Your task to perform on an android device: add a label to a message in the gmail app Image 0: 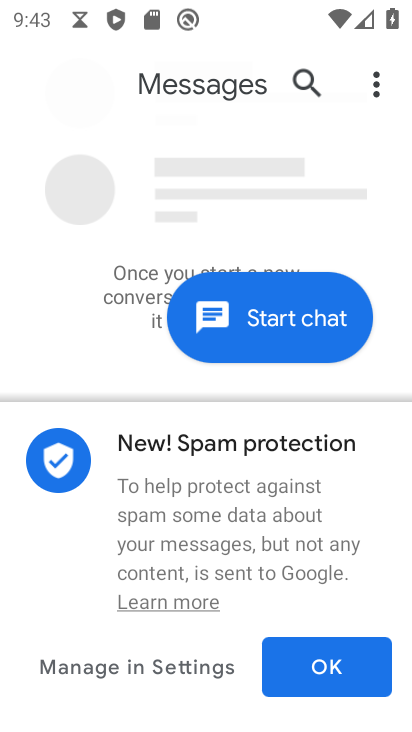
Step 0: press home button
Your task to perform on an android device: add a label to a message in the gmail app Image 1: 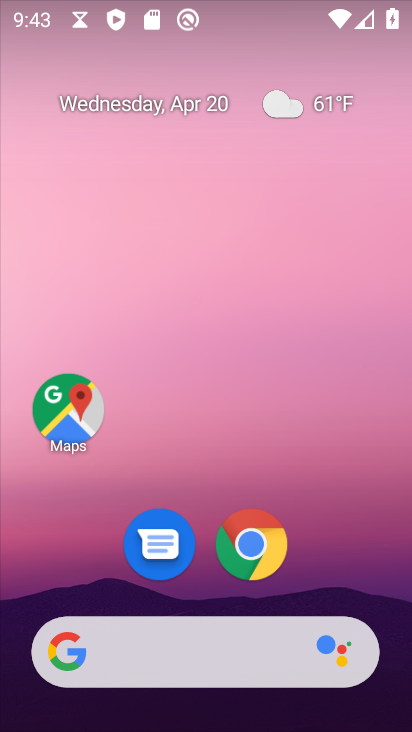
Step 1: drag from (114, 650) to (280, 202)
Your task to perform on an android device: add a label to a message in the gmail app Image 2: 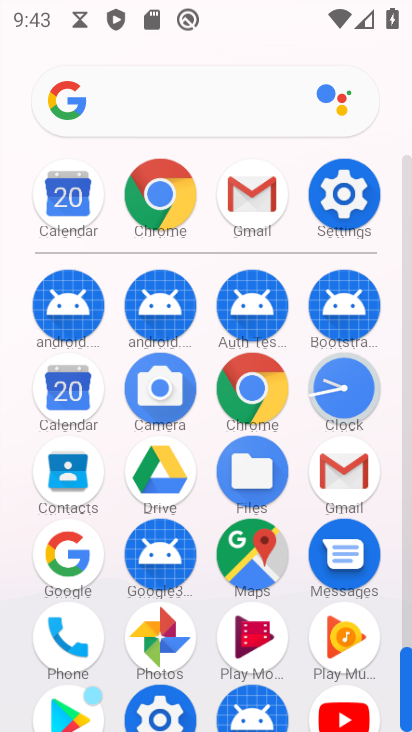
Step 2: click (255, 203)
Your task to perform on an android device: add a label to a message in the gmail app Image 3: 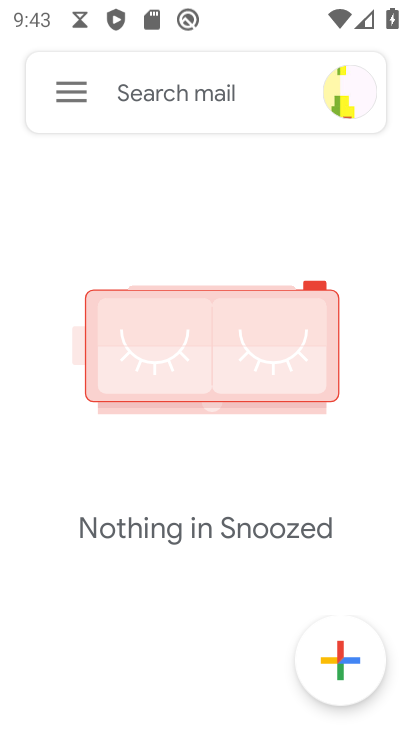
Step 3: click (67, 92)
Your task to perform on an android device: add a label to a message in the gmail app Image 4: 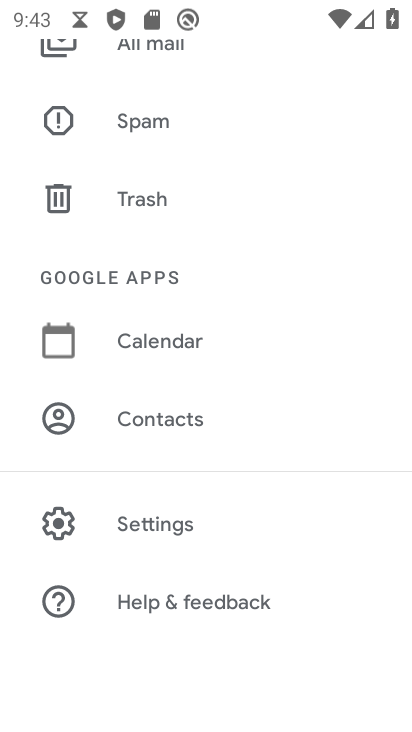
Step 4: drag from (227, 118) to (236, 558)
Your task to perform on an android device: add a label to a message in the gmail app Image 5: 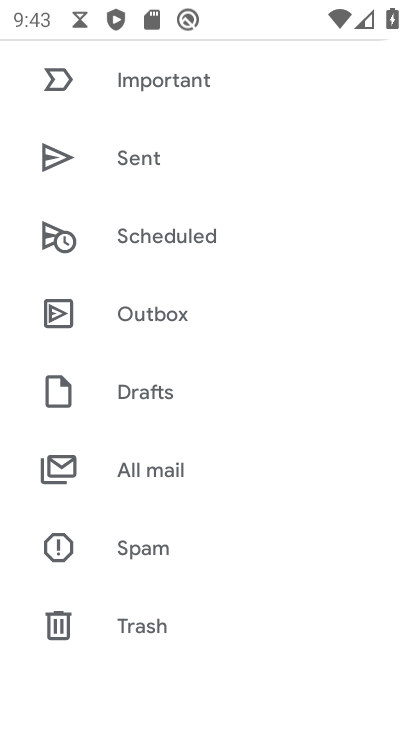
Step 5: click (161, 464)
Your task to perform on an android device: add a label to a message in the gmail app Image 6: 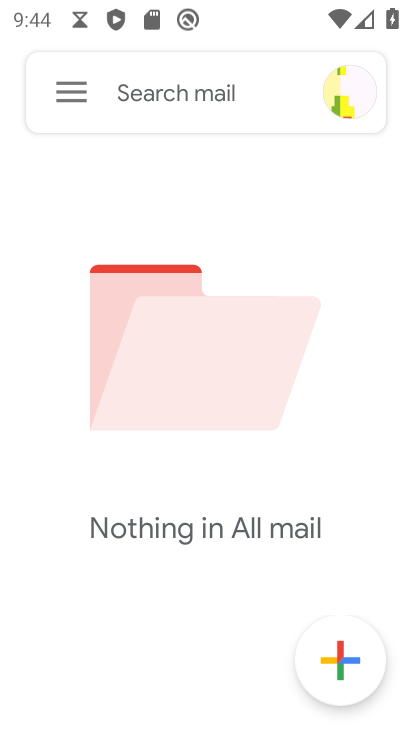
Step 6: task complete